Your task to perform on an android device: toggle pop-ups in chrome Image 0: 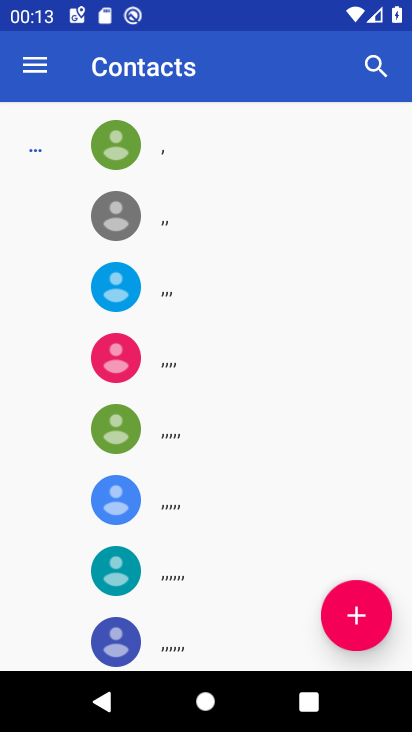
Step 0: press home button
Your task to perform on an android device: toggle pop-ups in chrome Image 1: 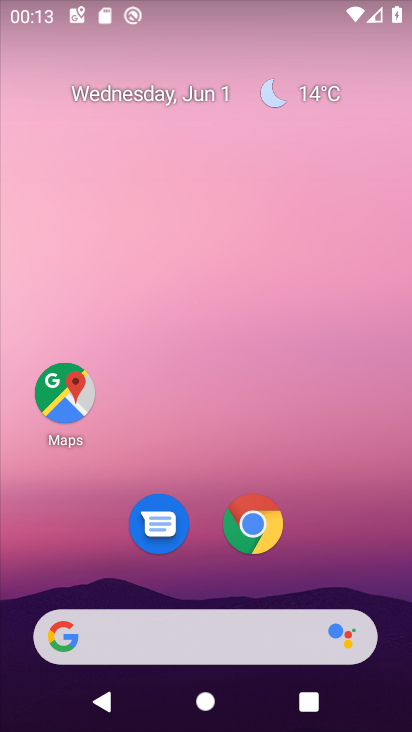
Step 1: click (260, 518)
Your task to perform on an android device: toggle pop-ups in chrome Image 2: 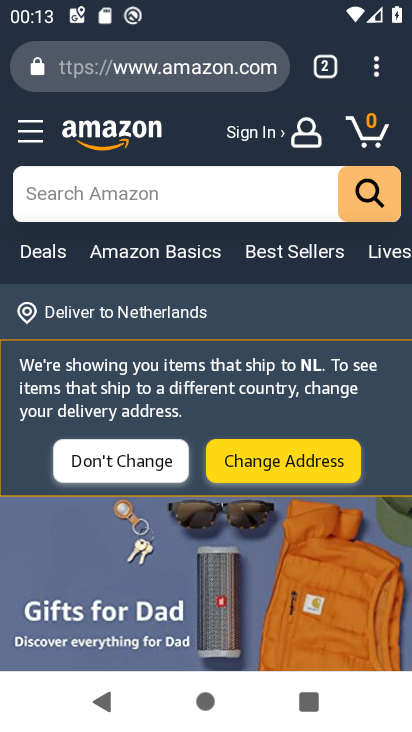
Step 2: click (375, 72)
Your task to perform on an android device: toggle pop-ups in chrome Image 3: 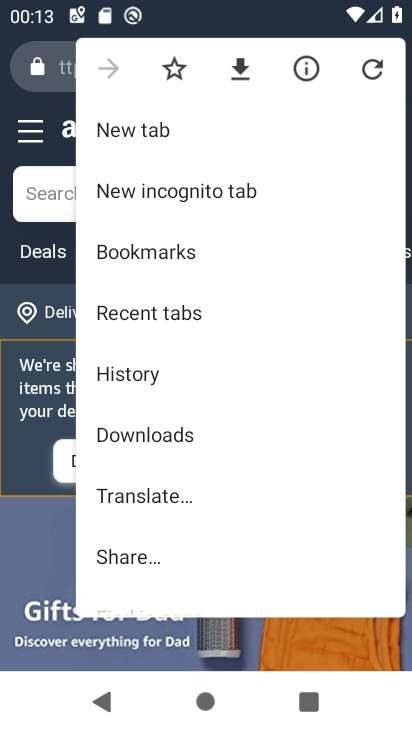
Step 3: drag from (314, 531) to (265, 289)
Your task to perform on an android device: toggle pop-ups in chrome Image 4: 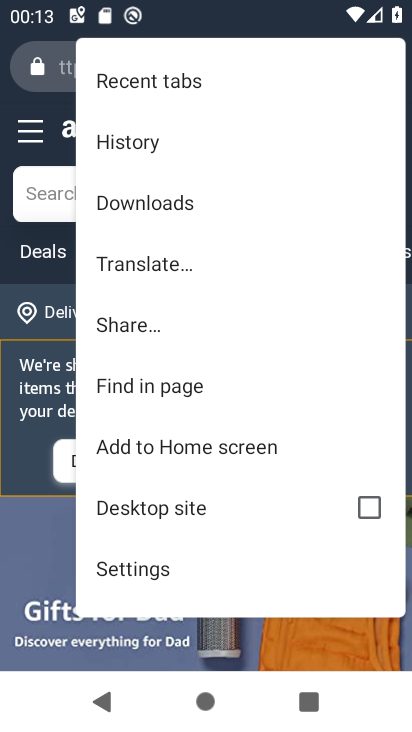
Step 4: click (188, 561)
Your task to perform on an android device: toggle pop-ups in chrome Image 5: 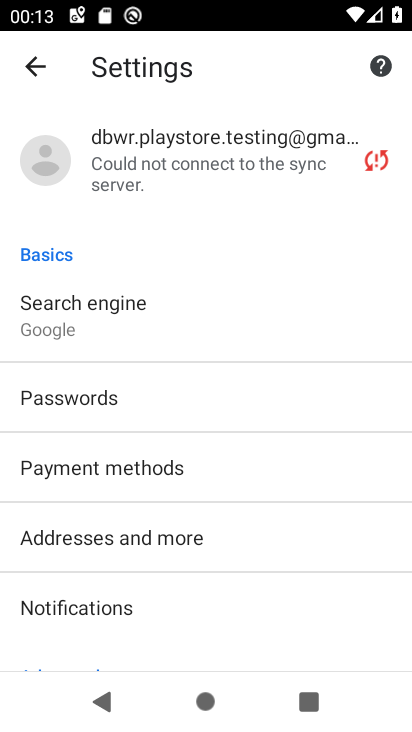
Step 5: drag from (192, 584) to (184, 361)
Your task to perform on an android device: toggle pop-ups in chrome Image 6: 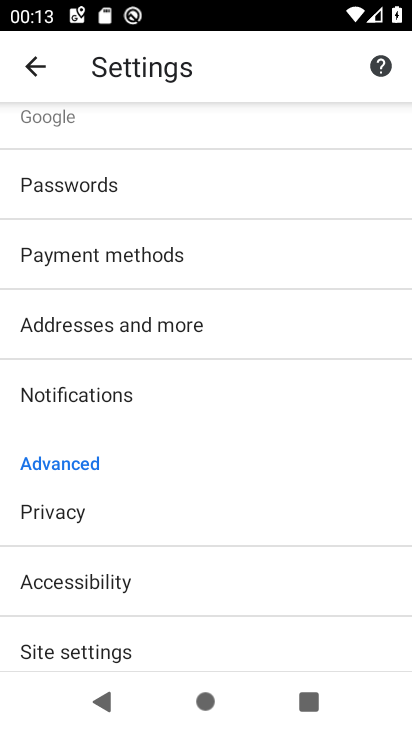
Step 6: click (199, 652)
Your task to perform on an android device: toggle pop-ups in chrome Image 7: 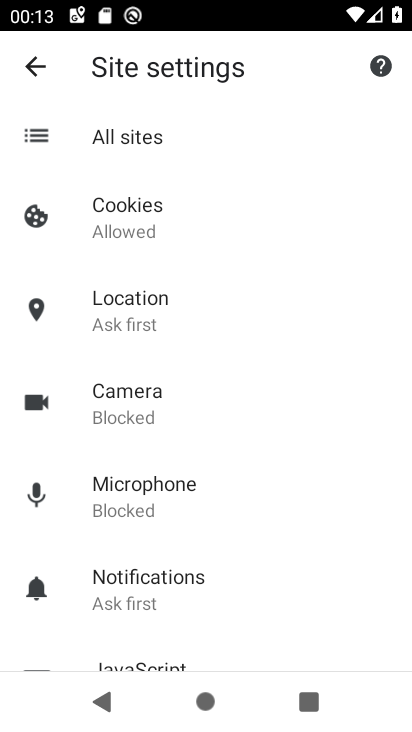
Step 7: drag from (214, 547) to (220, 379)
Your task to perform on an android device: toggle pop-ups in chrome Image 8: 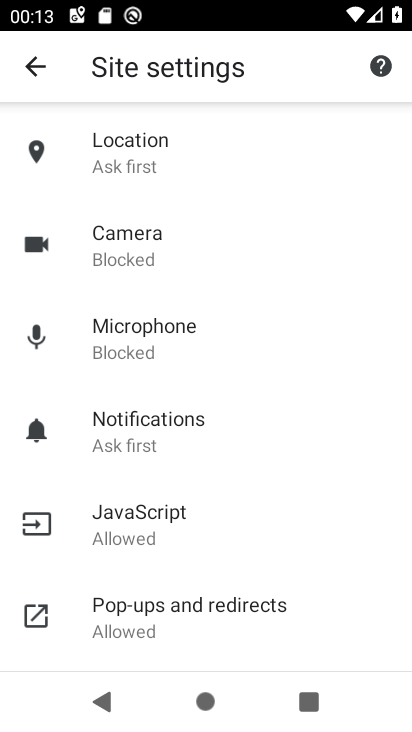
Step 8: click (200, 615)
Your task to perform on an android device: toggle pop-ups in chrome Image 9: 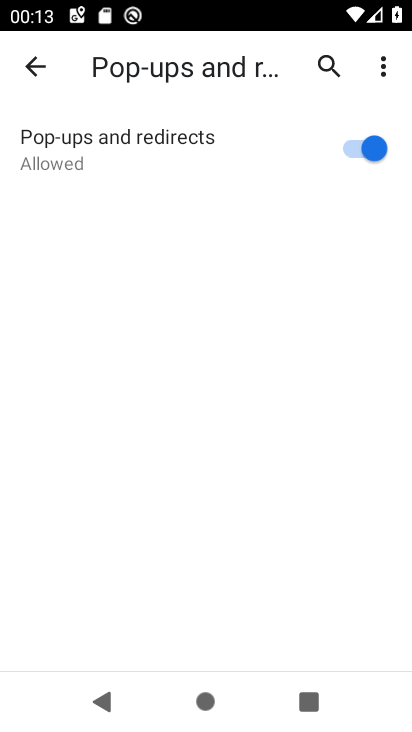
Step 9: click (361, 139)
Your task to perform on an android device: toggle pop-ups in chrome Image 10: 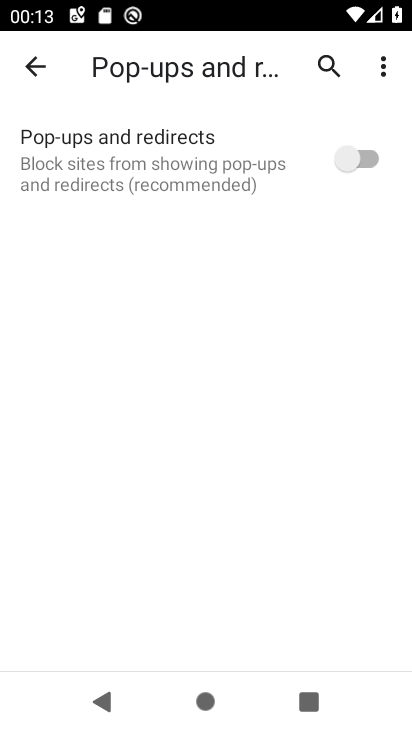
Step 10: task complete